Your task to perform on an android device: open a bookmark in the chrome app Image 0: 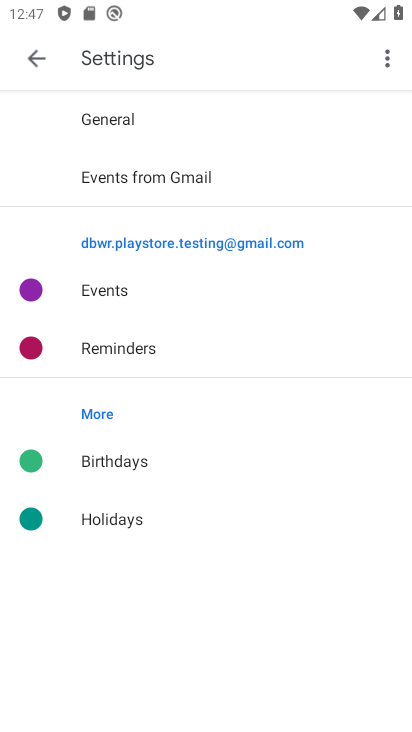
Step 0: press home button
Your task to perform on an android device: open a bookmark in the chrome app Image 1: 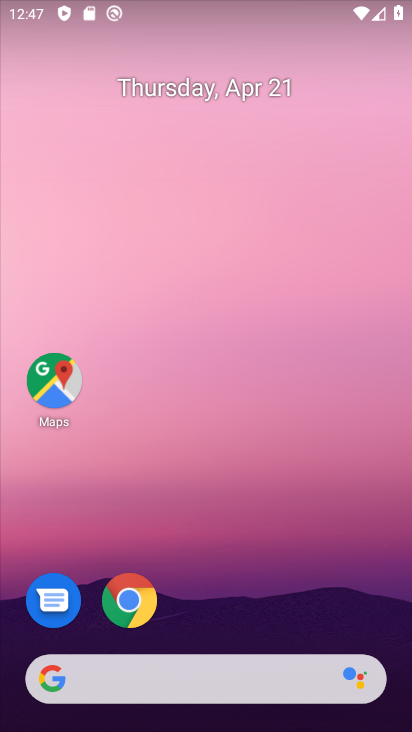
Step 1: click (127, 605)
Your task to perform on an android device: open a bookmark in the chrome app Image 2: 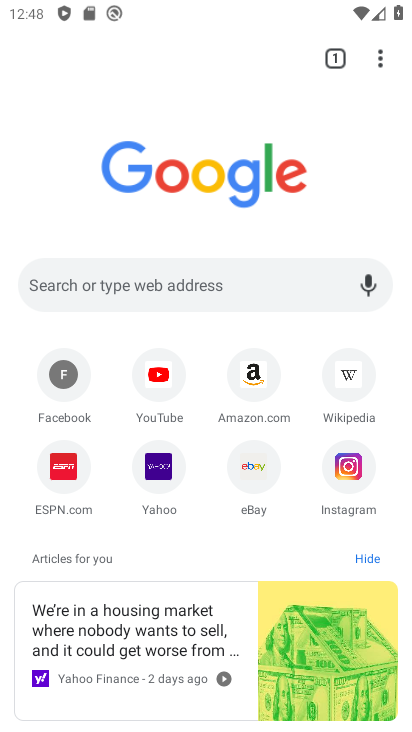
Step 2: click (382, 63)
Your task to perform on an android device: open a bookmark in the chrome app Image 3: 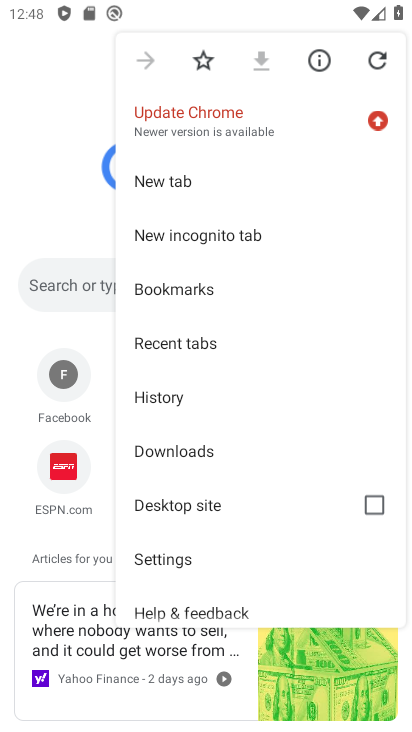
Step 3: click (179, 284)
Your task to perform on an android device: open a bookmark in the chrome app Image 4: 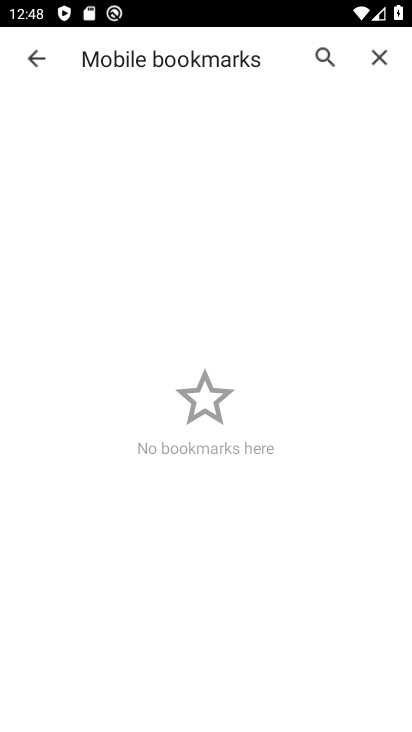
Step 4: task complete